Your task to perform on an android device: toggle notifications settings in the gmail app Image 0: 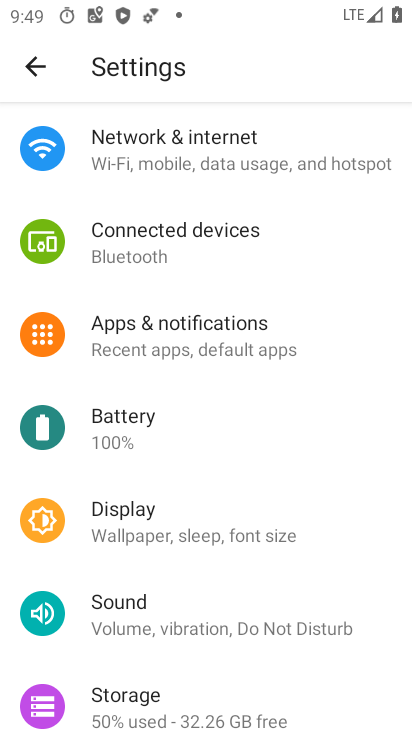
Step 0: press home button
Your task to perform on an android device: toggle notifications settings in the gmail app Image 1: 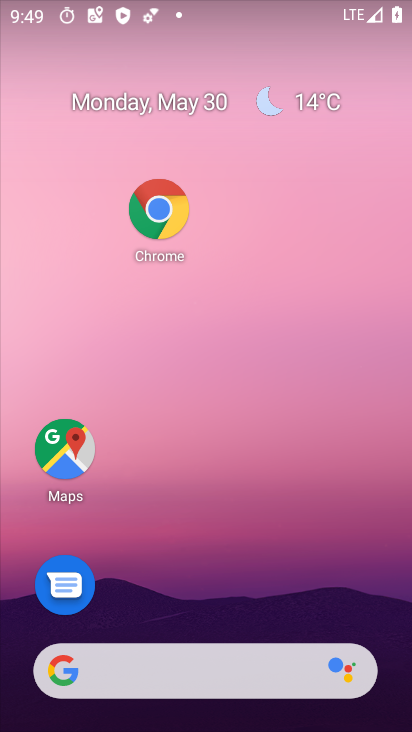
Step 1: drag from (182, 628) to (274, 231)
Your task to perform on an android device: toggle notifications settings in the gmail app Image 2: 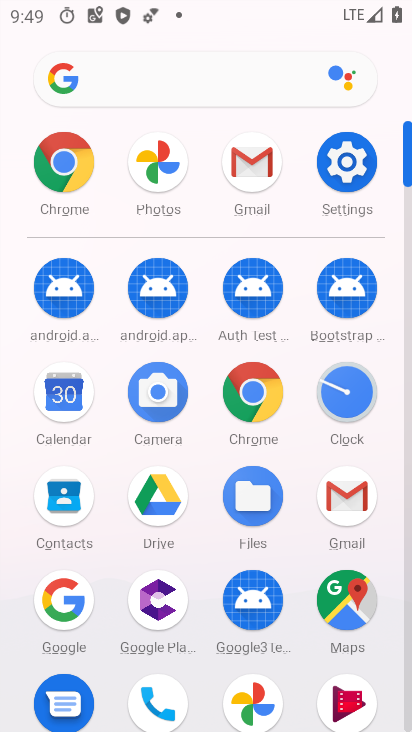
Step 2: click (339, 499)
Your task to perform on an android device: toggle notifications settings in the gmail app Image 3: 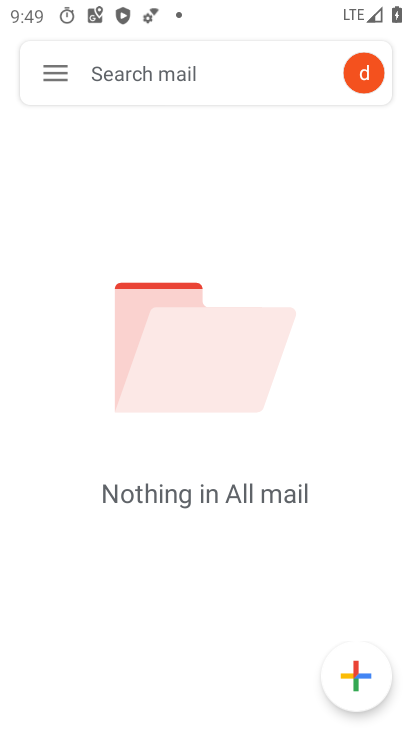
Step 3: click (58, 72)
Your task to perform on an android device: toggle notifications settings in the gmail app Image 4: 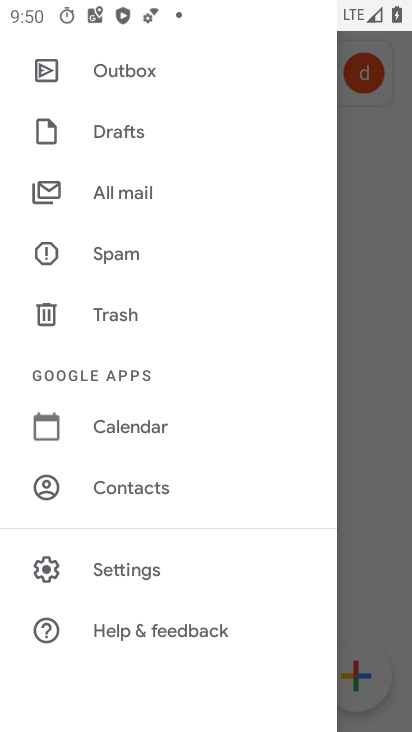
Step 4: click (147, 568)
Your task to perform on an android device: toggle notifications settings in the gmail app Image 5: 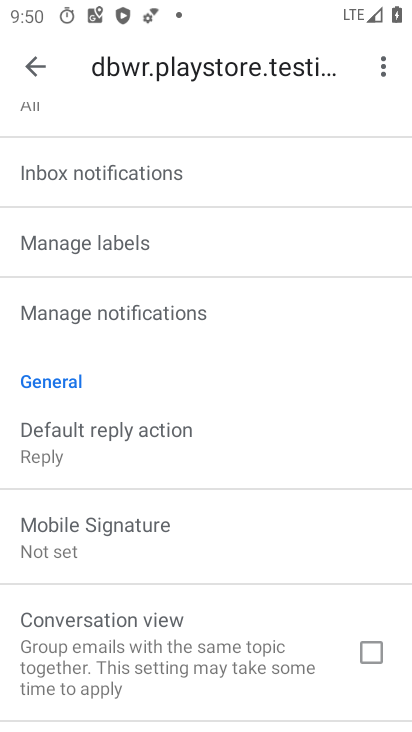
Step 5: click (157, 314)
Your task to perform on an android device: toggle notifications settings in the gmail app Image 6: 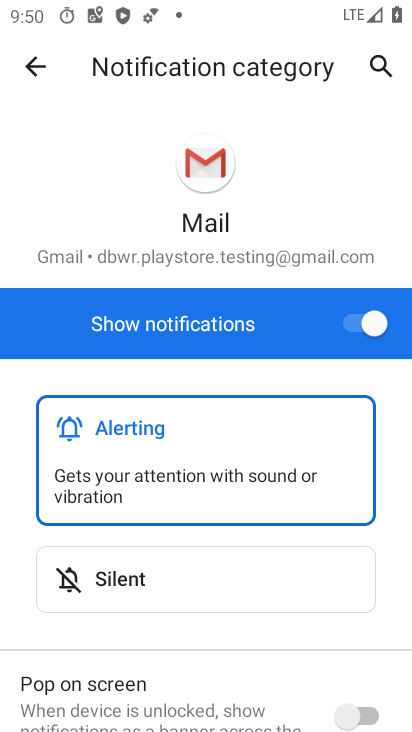
Step 6: click (360, 332)
Your task to perform on an android device: toggle notifications settings in the gmail app Image 7: 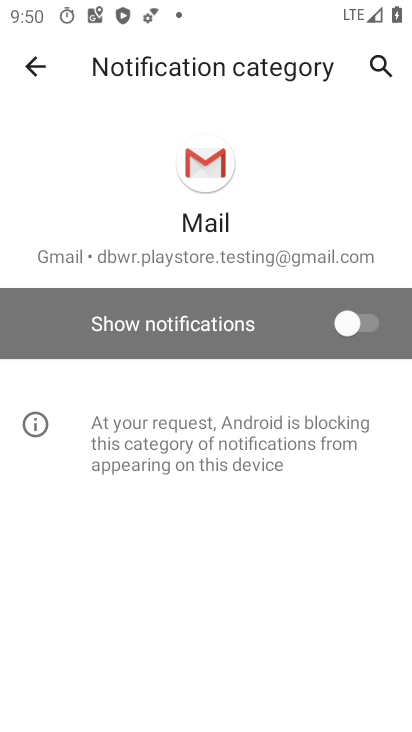
Step 7: task complete